Your task to perform on an android device: Is it going to rain tomorrow? Image 0: 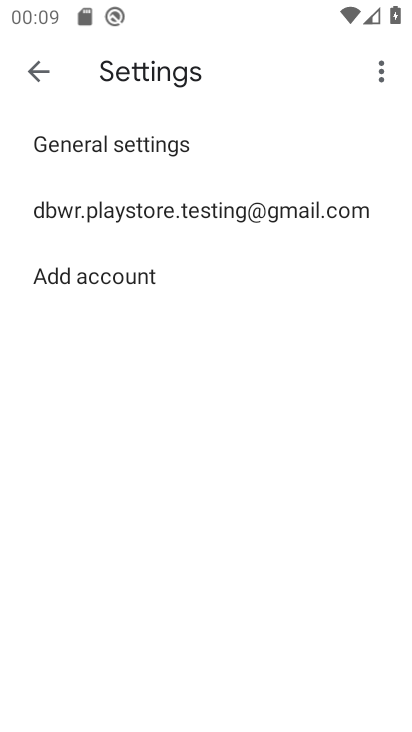
Step 0: click (33, 65)
Your task to perform on an android device: Is it going to rain tomorrow? Image 1: 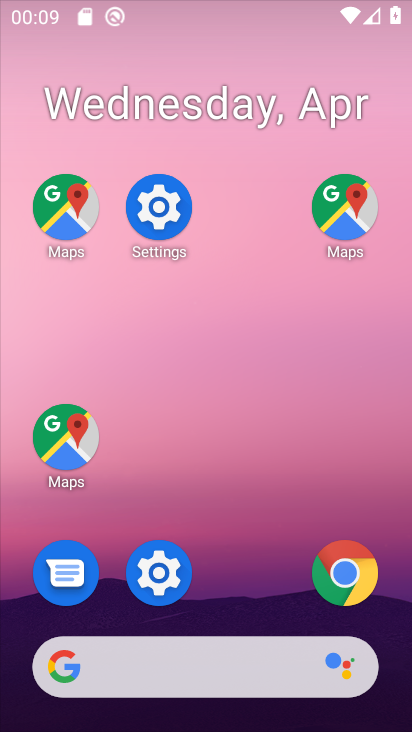
Step 1: drag from (279, 672) to (188, 159)
Your task to perform on an android device: Is it going to rain tomorrow? Image 2: 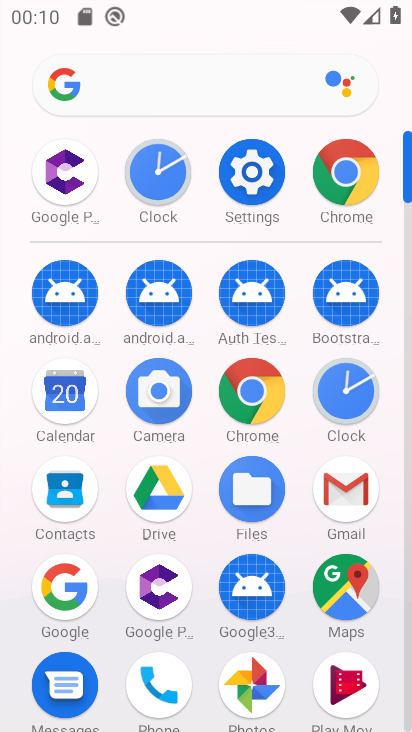
Step 2: press home button
Your task to perform on an android device: Is it going to rain tomorrow? Image 3: 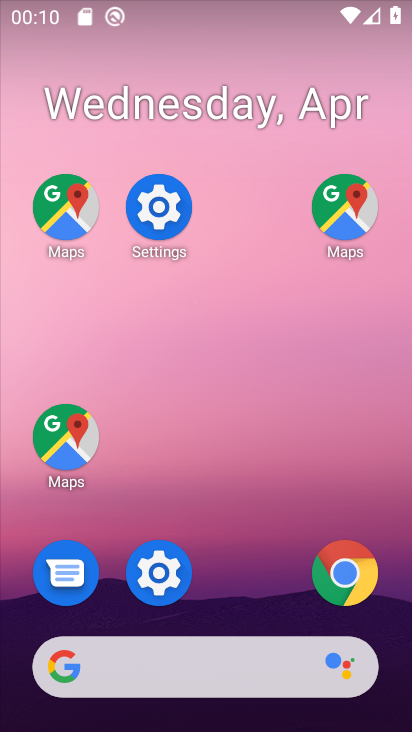
Step 3: drag from (6, 287) to (386, 325)
Your task to perform on an android device: Is it going to rain tomorrow? Image 4: 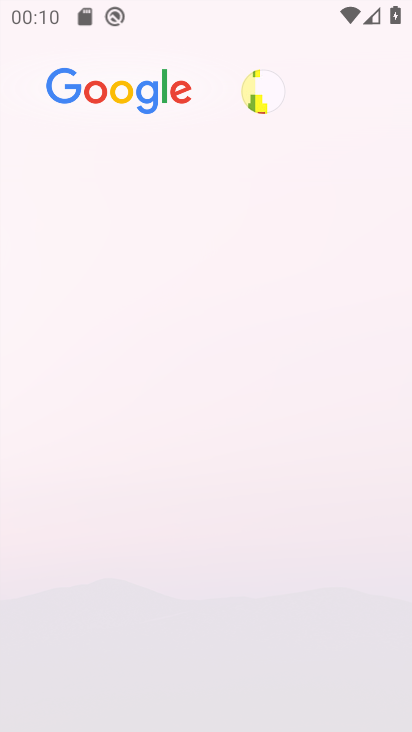
Step 4: drag from (178, 332) to (398, 306)
Your task to perform on an android device: Is it going to rain tomorrow? Image 5: 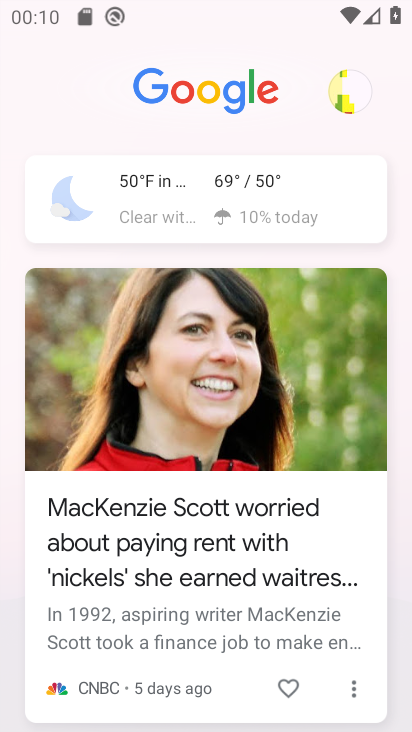
Step 5: click (242, 193)
Your task to perform on an android device: Is it going to rain tomorrow? Image 6: 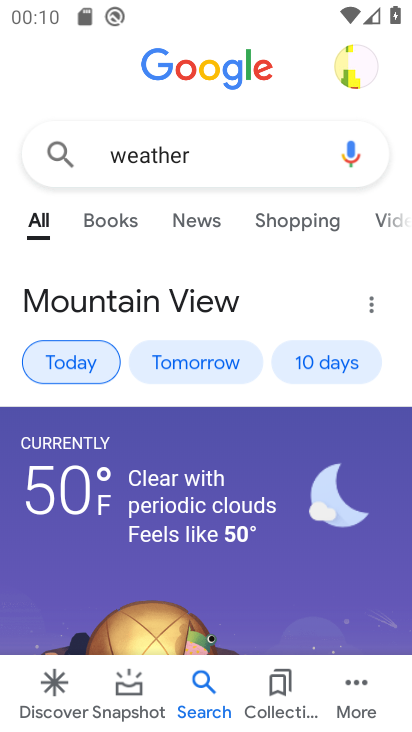
Step 6: click (200, 362)
Your task to perform on an android device: Is it going to rain tomorrow? Image 7: 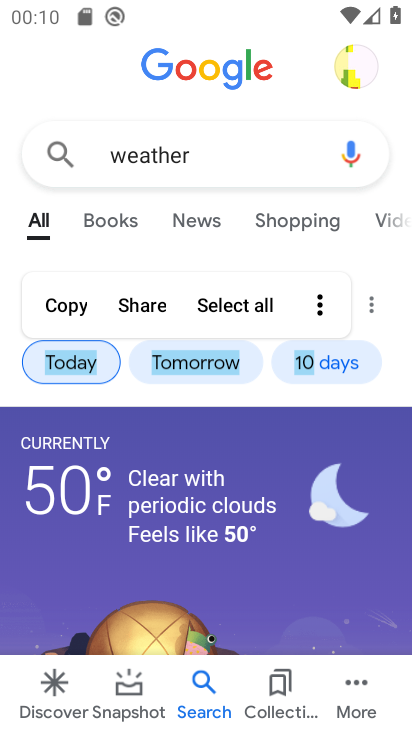
Step 7: click (200, 362)
Your task to perform on an android device: Is it going to rain tomorrow? Image 8: 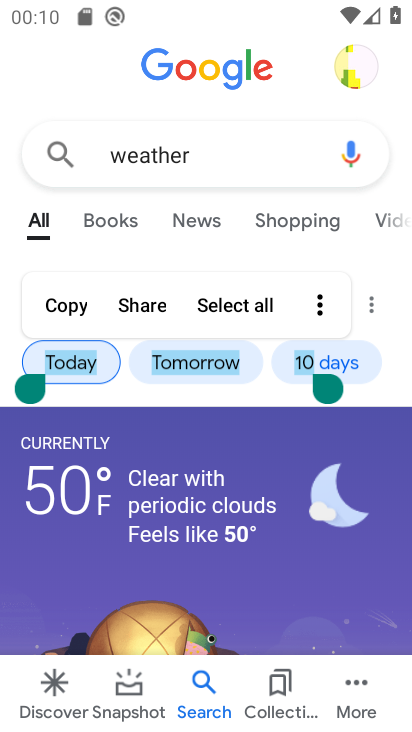
Step 8: click (200, 362)
Your task to perform on an android device: Is it going to rain tomorrow? Image 9: 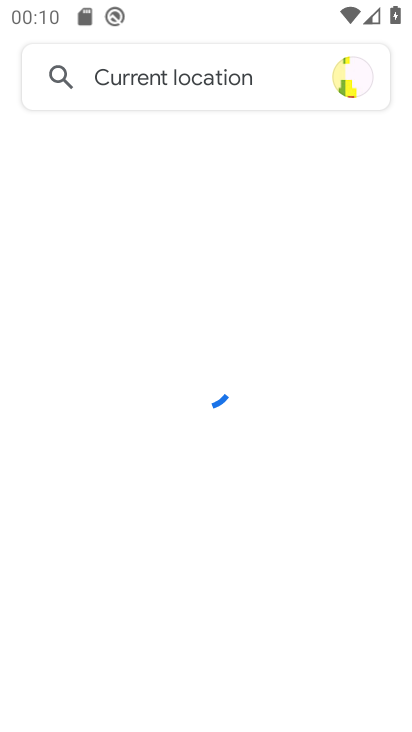
Step 9: task complete